Your task to perform on an android device: check android version Image 0: 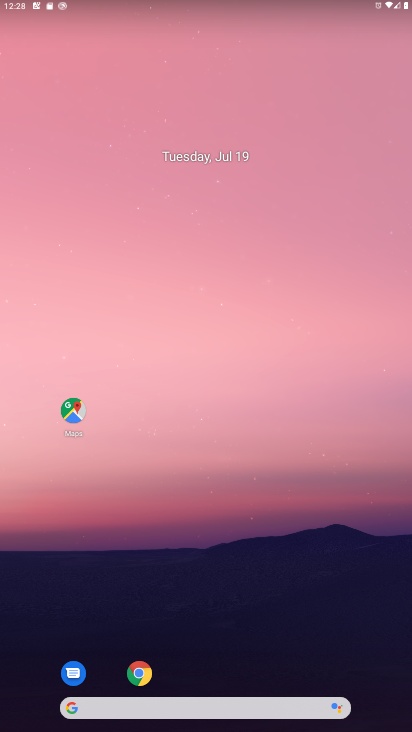
Step 0: drag from (219, 661) to (235, 225)
Your task to perform on an android device: check android version Image 1: 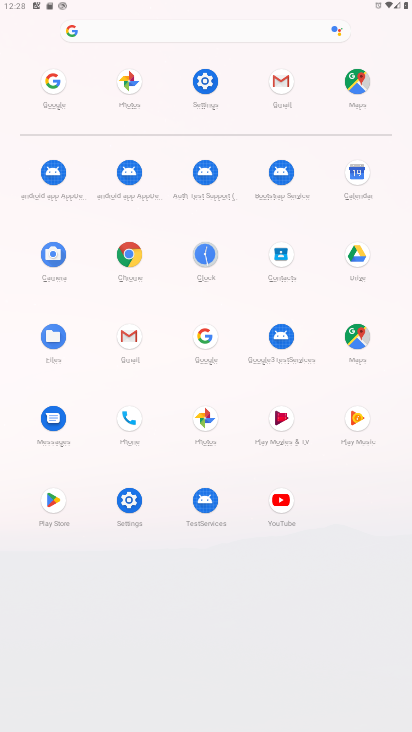
Step 1: click (212, 84)
Your task to perform on an android device: check android version Image 2: 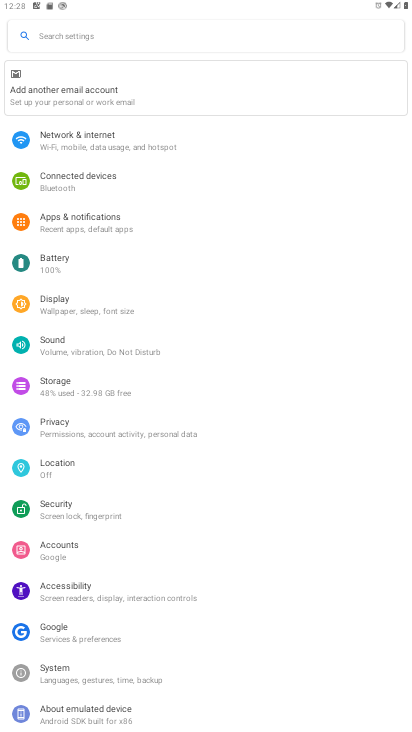
Step 2: drag from (221, 604) to (248, 252)
Your task to perform on an android device: check android version Image 3: 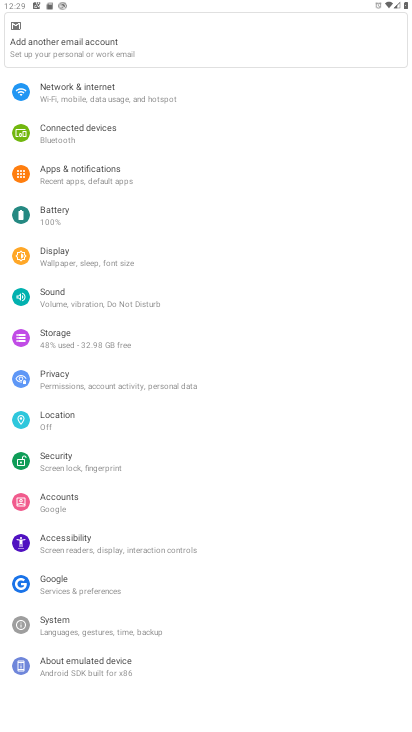
Step 3: click (118, 660)
Your task to perform on an android device: check android version Image 4: 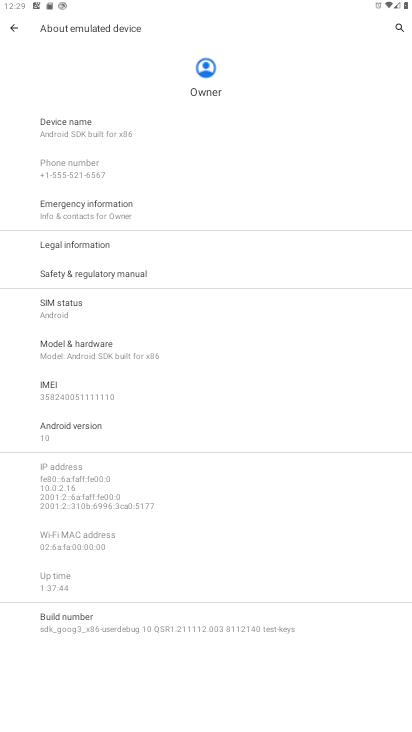
Step 4: click (107, 435)
Your task to perform on an android device: check android version Image 5: 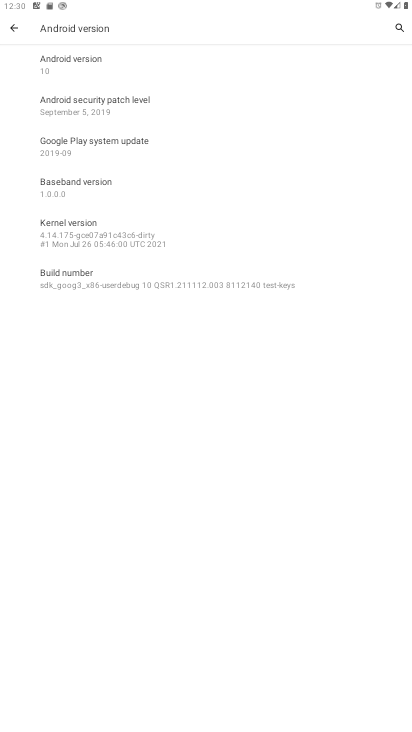
Step 5: task complete